Your task to perform on an android device: set the timer Image 0: 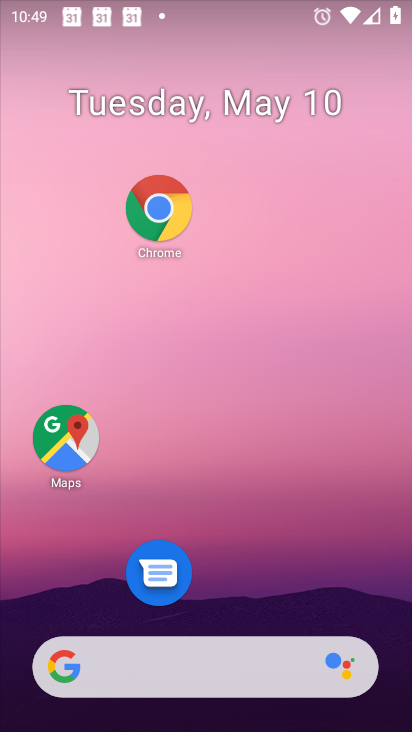
Step 0: drag from (304, 693) to (299, 384)
Your task to perform on an android device: set the timer Image 1: 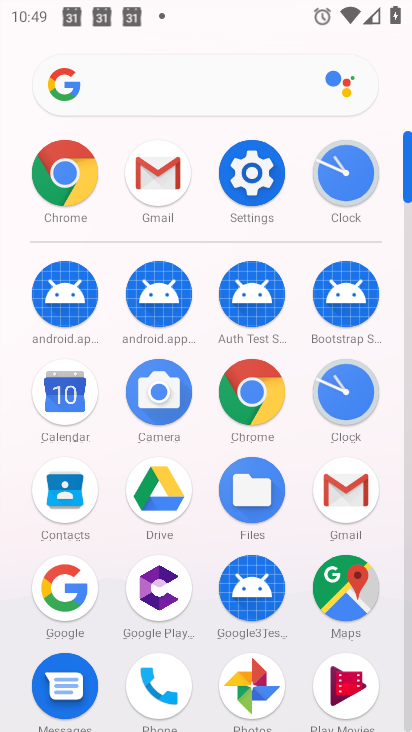
Step 1: click (346, 184)
Your task to perform on an android device: set the timer Image 2: 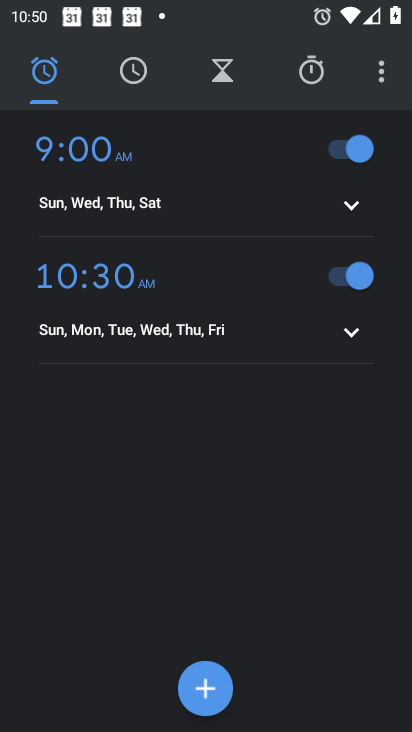
Step 2: click (377, 70)
Your task to perform on an android device: set the timer Image 3: 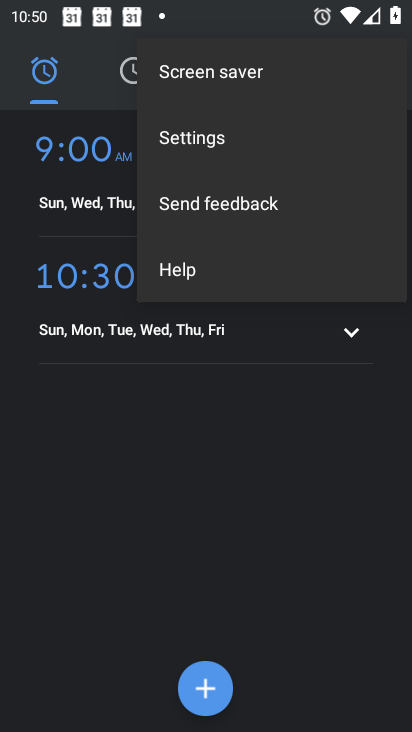
Step 3: click (227, 146)
Your task to perform on an android device: set the timer Image 4: 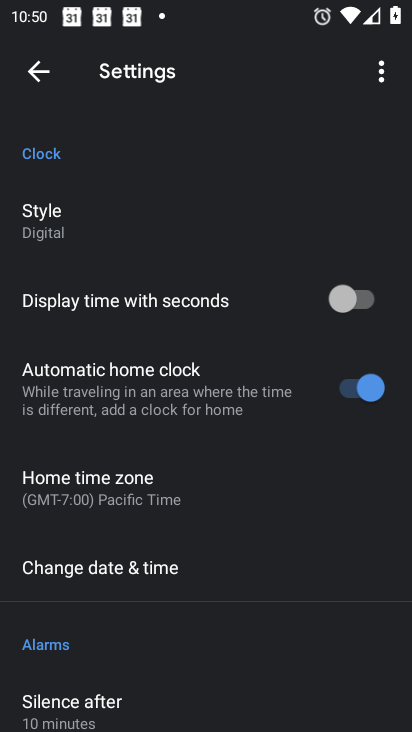
Step 4: drag from (162, 634) to (209, 248)
Your task to perform on an android device: set the timer Image 5: 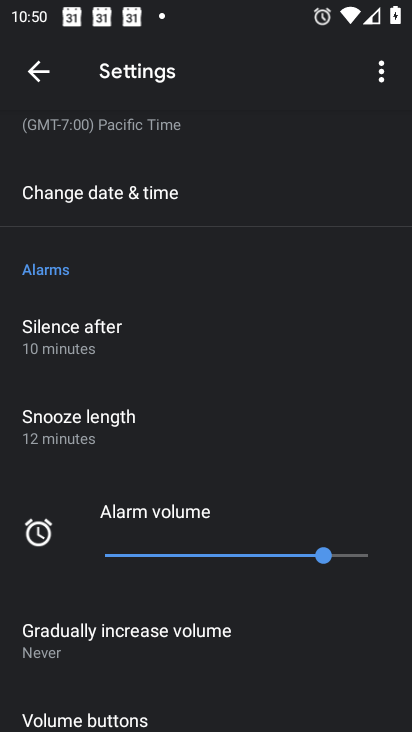
Step 5: drag from (145, 459) to (220, 184)
Your task to perform on an android device: set the timer Image 6: 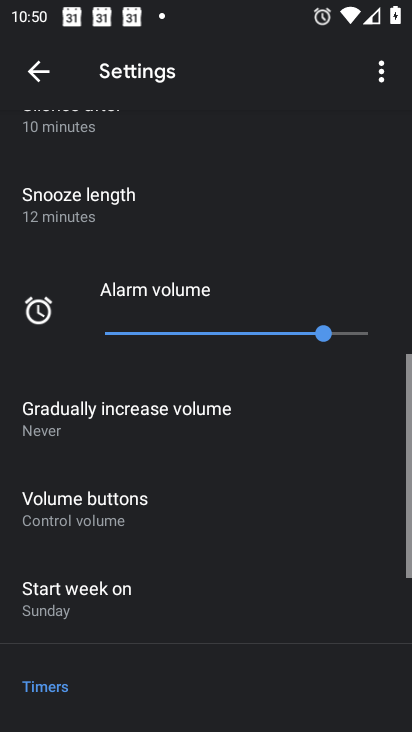
Step 6: drag from (150, 564) to (231, 295)
Your task to perform on an android device: set the timer Image 7: 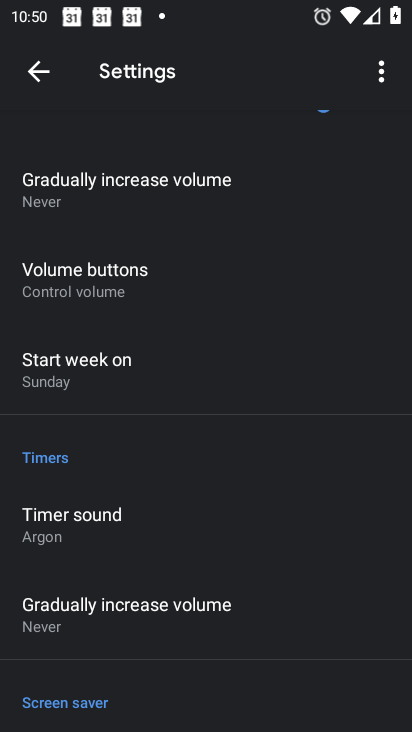
Step 7: click (34, 64)
Your task to perform on an android device: set the timer Image 8: 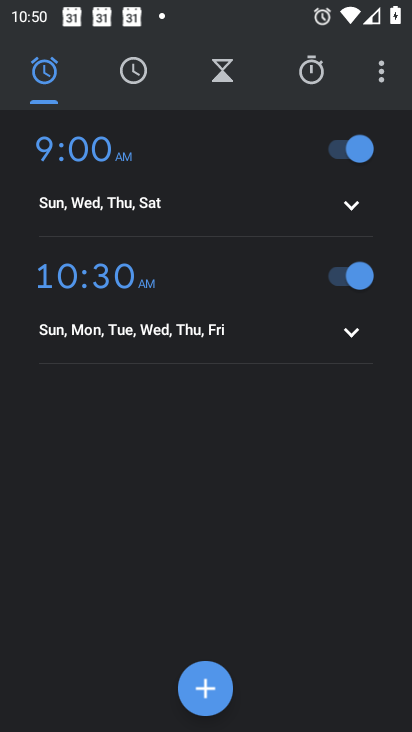
Step 8: click (320, 77)
Your task to perform on an android device: set the timer Image 9: 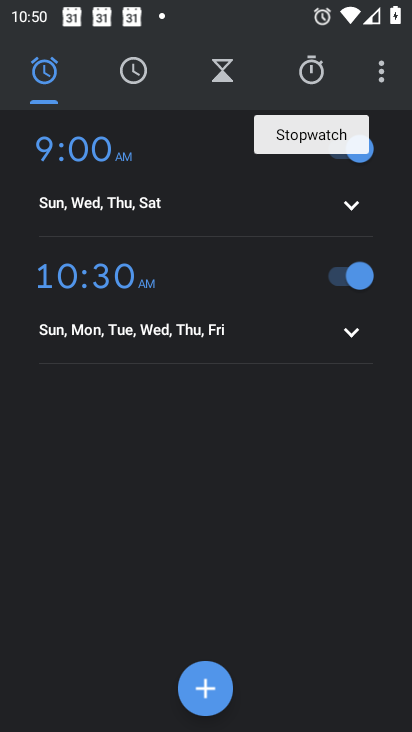
Step 9: click (229, 68)
Your task to perform on an android device: set the timer Image 10: 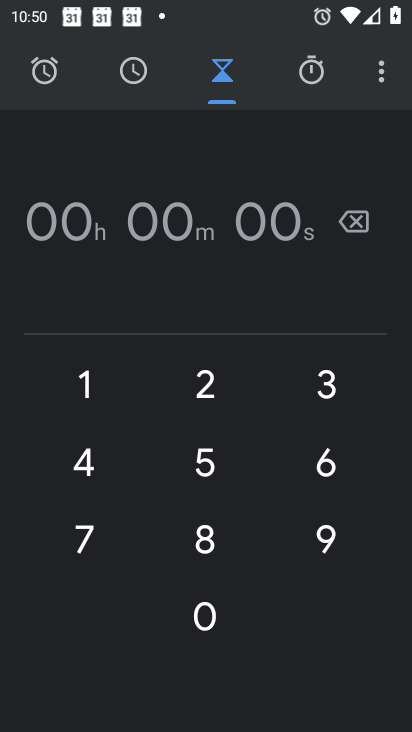
Step 10: click (221, 395)
Your task to perform on an android device: set the timer Image 11: 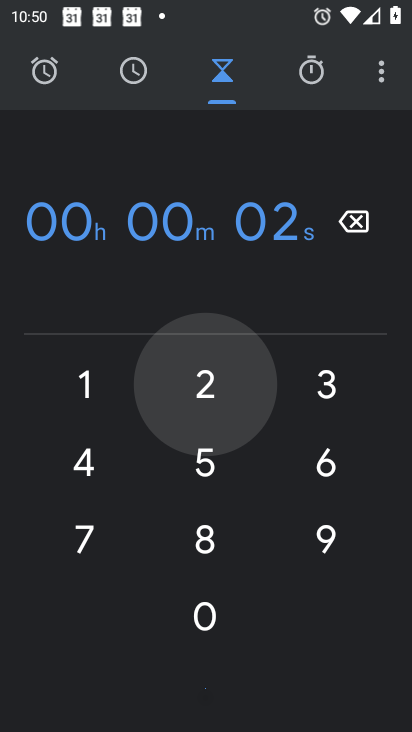
Step 11: click (211, 469)
Your task to perform on an android device: set the timer Image 12: 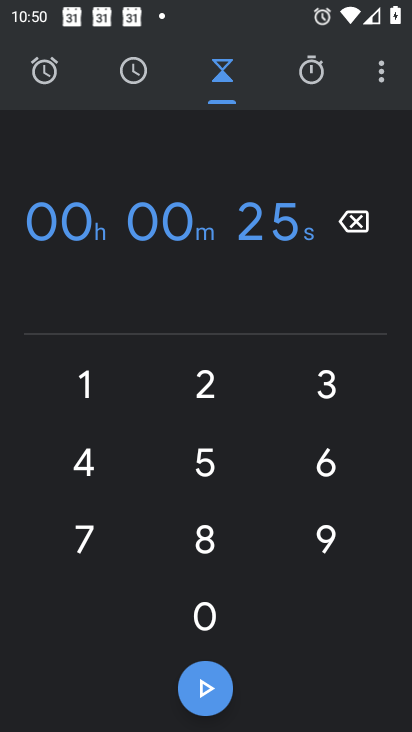
Step 12: click (172, 518)
Your task to perform on an android device: set the timer Image 13: 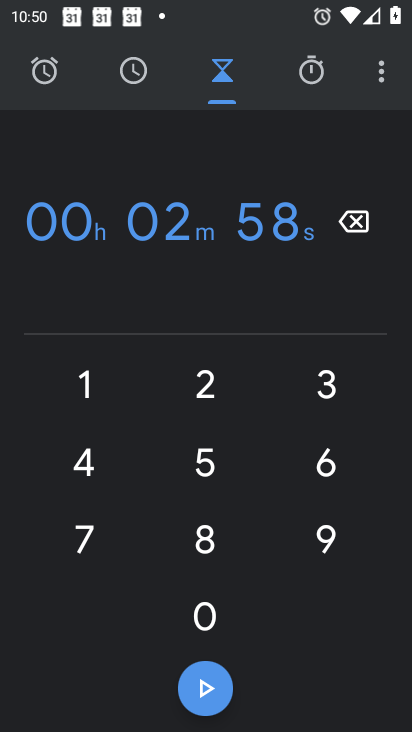
Step 13: click (115, 532)
Your task to perform on an android device: set the timer Image 14: 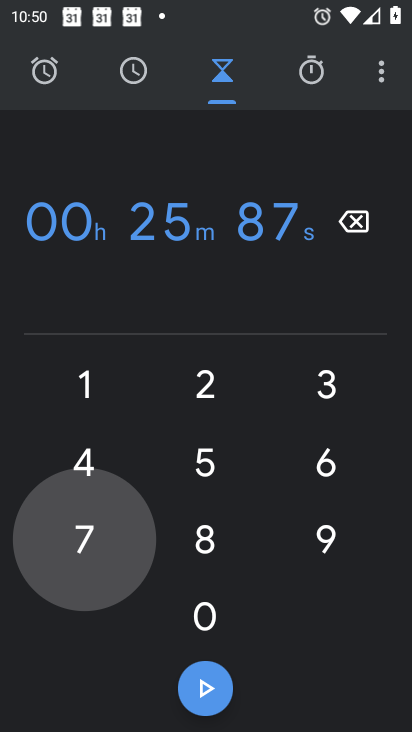
Step 14: click (99, 486)
Your task to perform on an android device: set the timer Image 15: 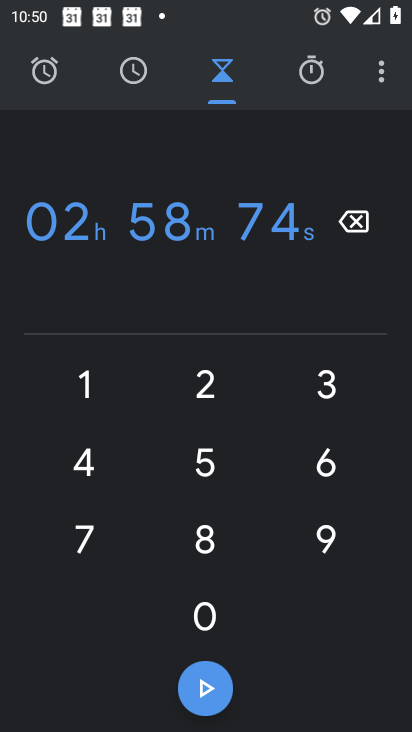
Step 15: click (232, 449)
Your task to perform on an android device: set the timer Image 16: 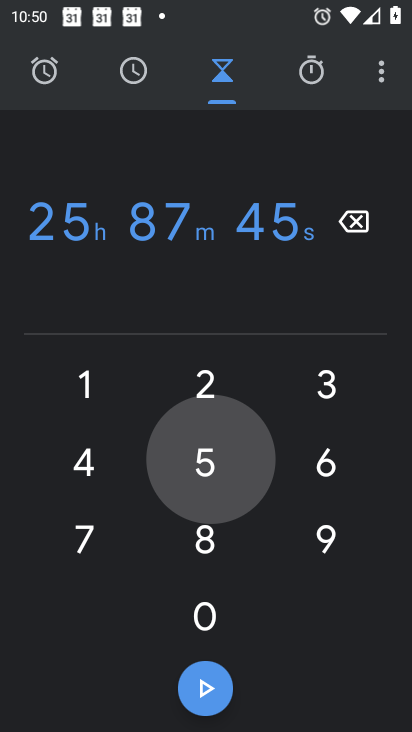
Step 16: click (260, 427)
Your task to perform on an android device: set the timer Image 17: 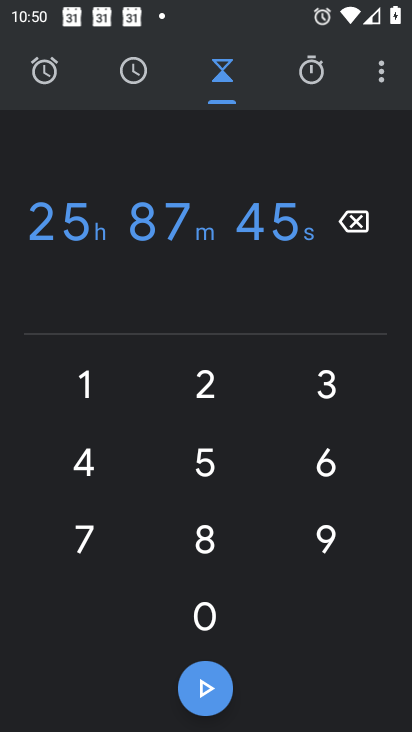
Step 17: task complete